Your task to perform on an android device: Set the phone to "Do not disturb". Image 0: 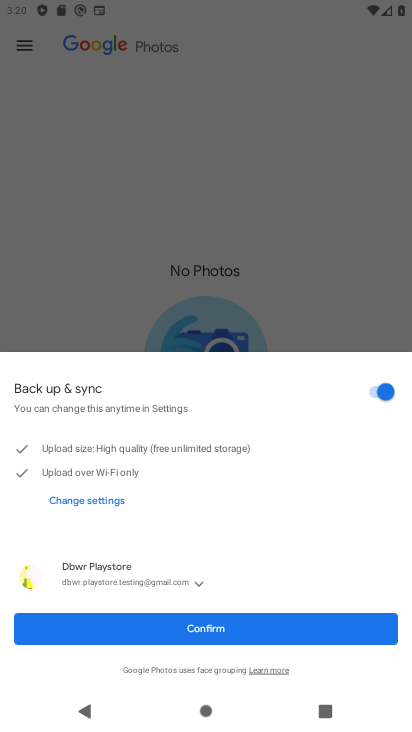
Step 0: press home button
Your task to perform on an android device: Set the phone to "Do not disturb". Image 1: 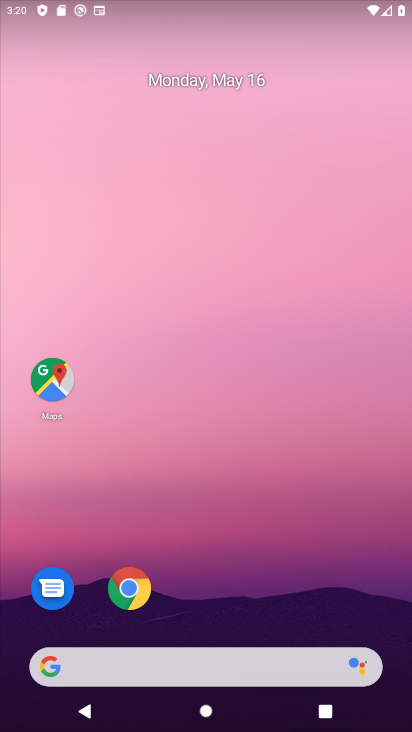
Step 1: drag from (304, 614) to (310, 1)
Your task to perform on an android device: Set the phone to "Do not disturb". Image 2: 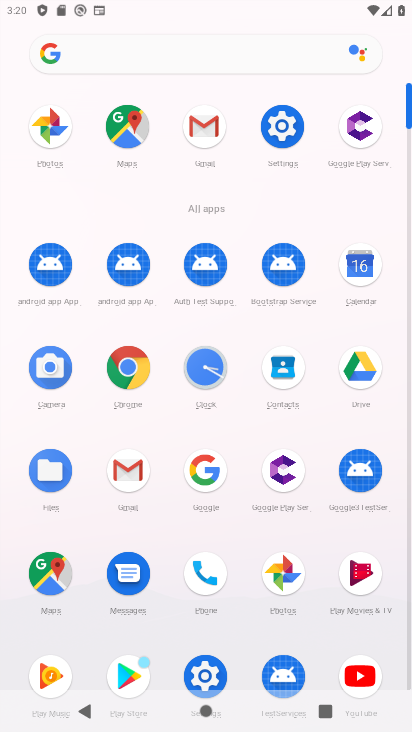
Step 2: click (282, 135)
Your task to perform on an android device: Set the phone to "Do not disturb". Image 3: 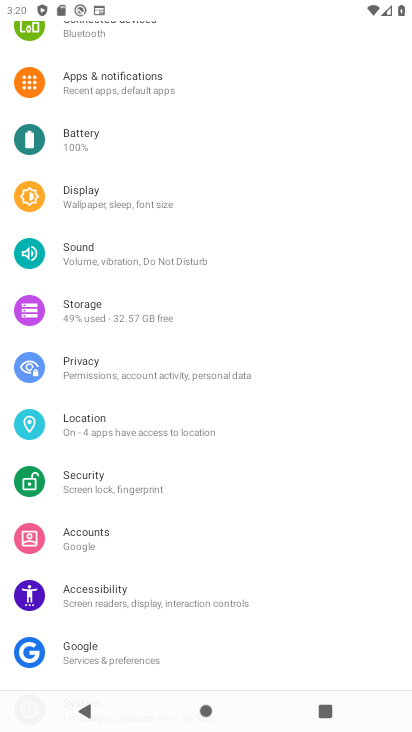
Step 3: click (76, 251)
Your task to perform on an android device: Set the phone to "Do not disturb". Image 4: 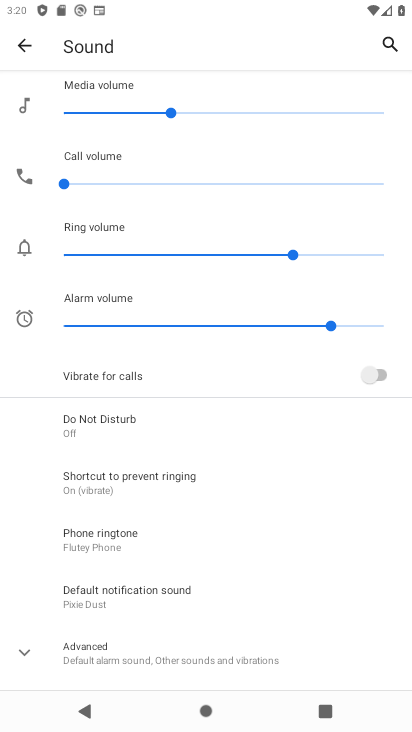
Step 4: drag from (157, 626) to (202, 258)
Your task to perform on an android device: Set the phone to "Do not disturb". Image 5: 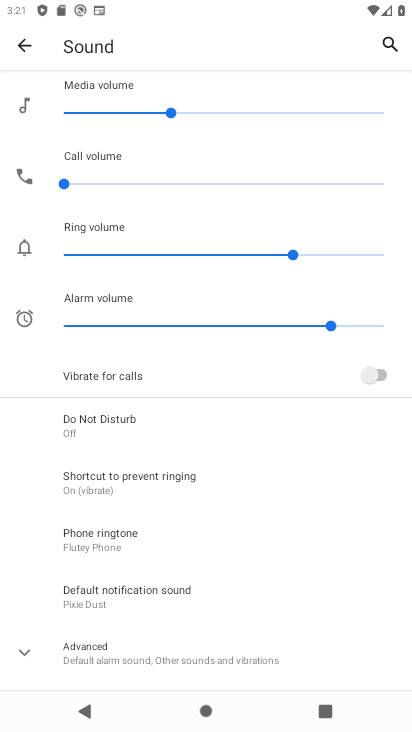
Step 5: click (32, 659)
Your task to perform on an android device: Set the phone to "Do not disturb". Image 6: 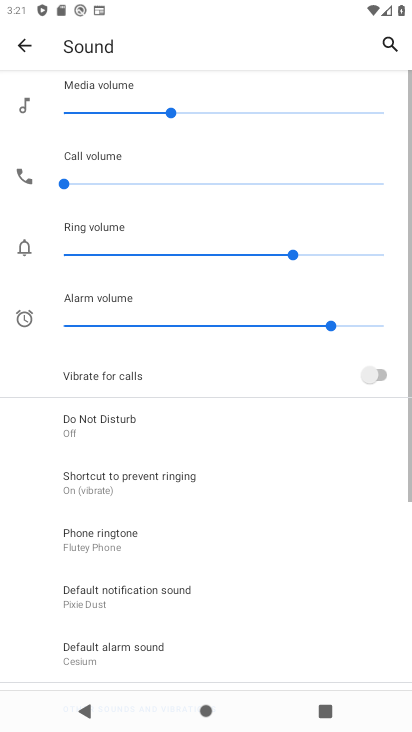
Step 6: click (116, 424)
Your task to perform on an android device: Set the phone to "Do not disturb". Image 7: 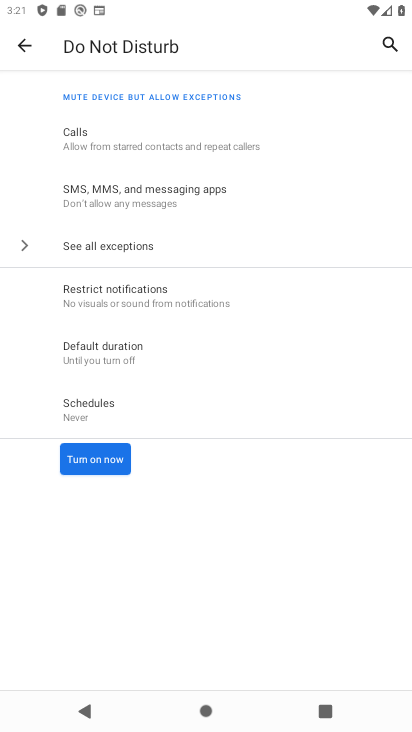
Step 7: click (92, 464)
Your task to perform on an android device: Set the phone to "Do not disturb". Image 8: 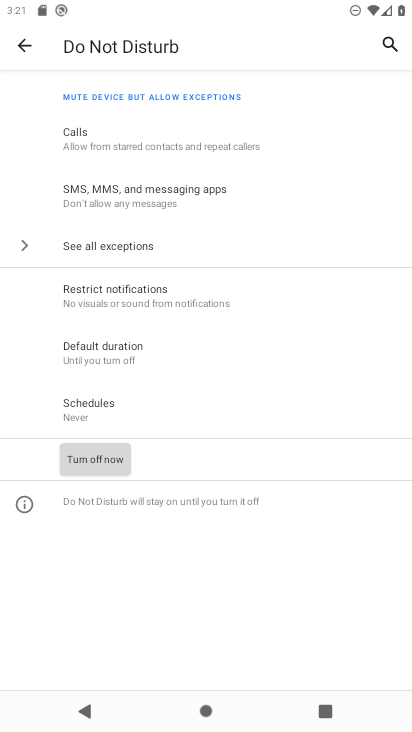
Step 8: task complete